Your task to perform on an android device: What's the weather going to be this weekend? Image 0: 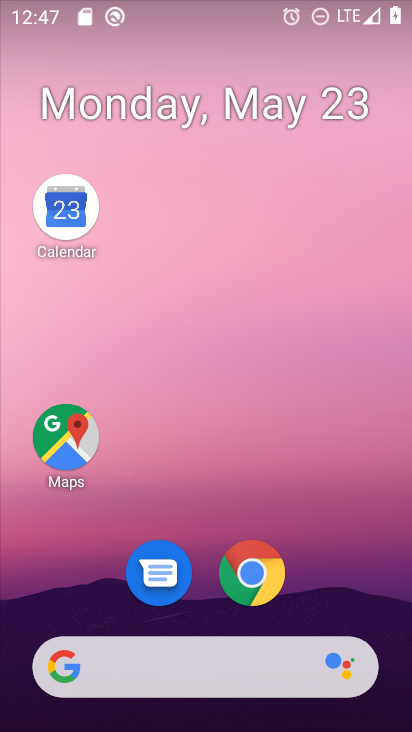
Step 0: click (126, 677)
Your task to perform on an android device: What's the weather going to be this weekend? Image 1: 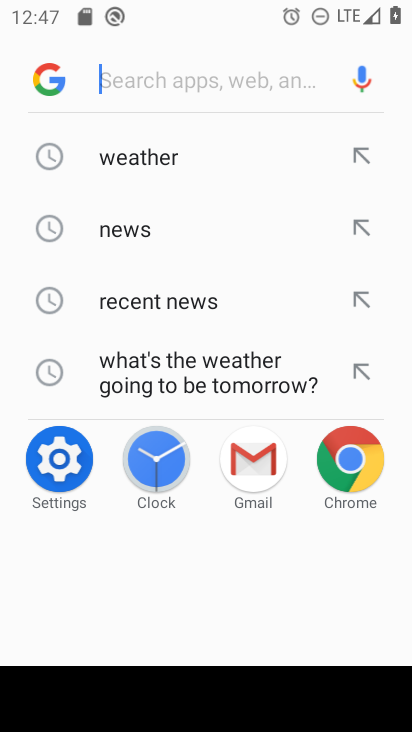
Step 1: type "what's the weather going to be this weekend"
Your task to perform on an android device: What's the weather going to be this weekend? Image 2: 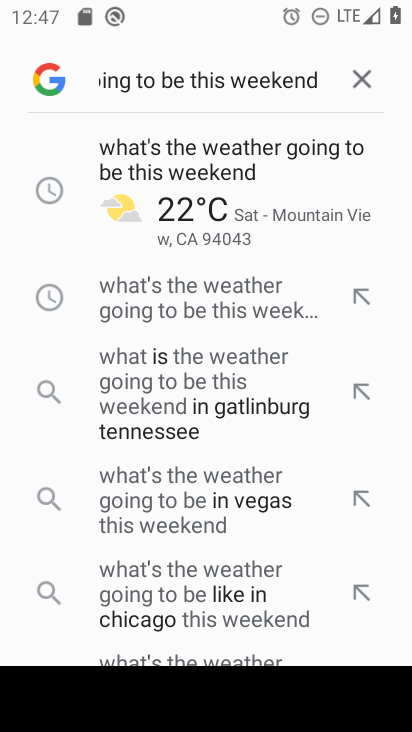
Step 2: click (161, 172)
Your task to perform on an android device: What's the weather going to be this weekend? Image 3: 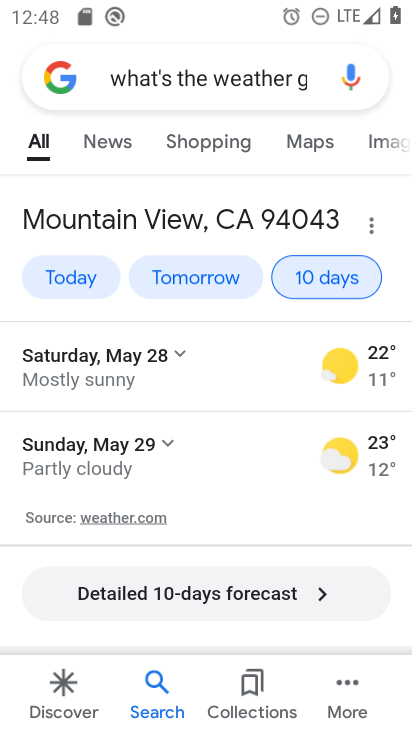
Step 3: task complete